Your task to perform on an android device: Open the calendar app, open the side menu, and click the "Day" option Image 0: 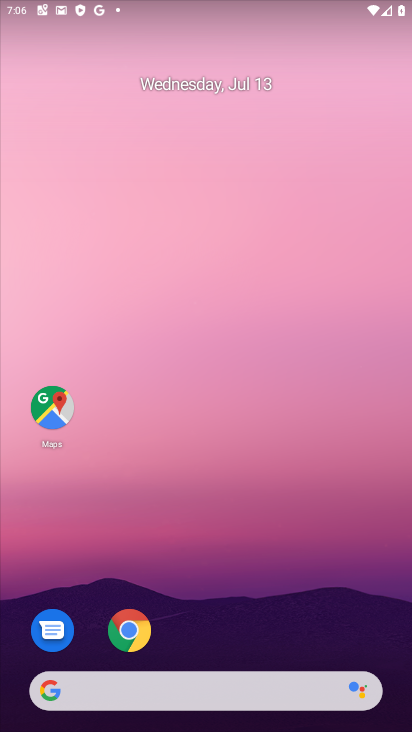
Step 0: drag from (301, 620) to (280, 32)
Your task to perform on an android device: Open the calendar app, open the side menu, and click the "Day" option Image 1: 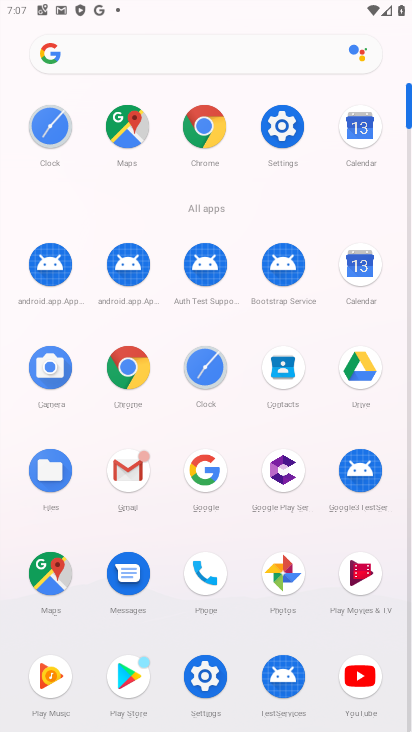
Step 1: click (355, 273)
Your task to perform on an android device: Open the calendar app, open the side menu, and click the "Day" option Image 2: 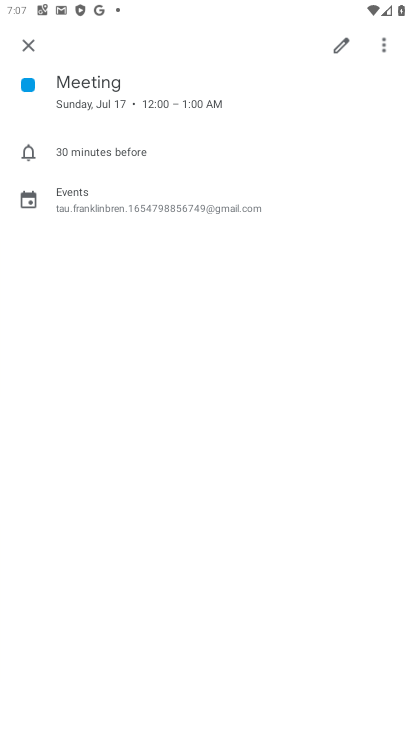
Step 2: press back button
Your task to perform on an android device: Open the calendar app, open the side menu, and click the "Day" option Image 3: 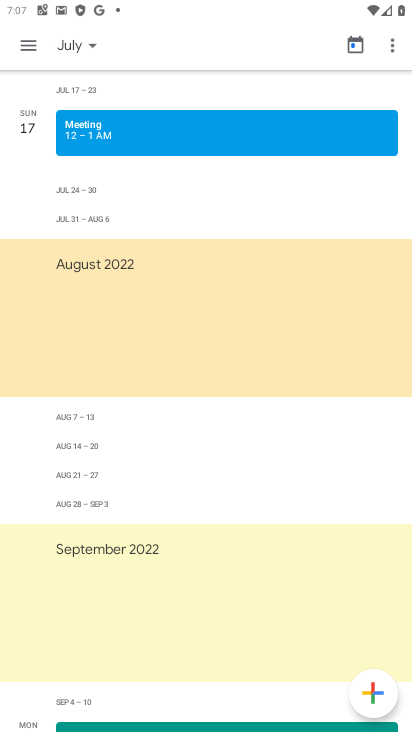
Step 3: click (28, 39)
Your task to perform on an android device: Open the calendar app, open the side menu, and click the "Day" option Image 4: 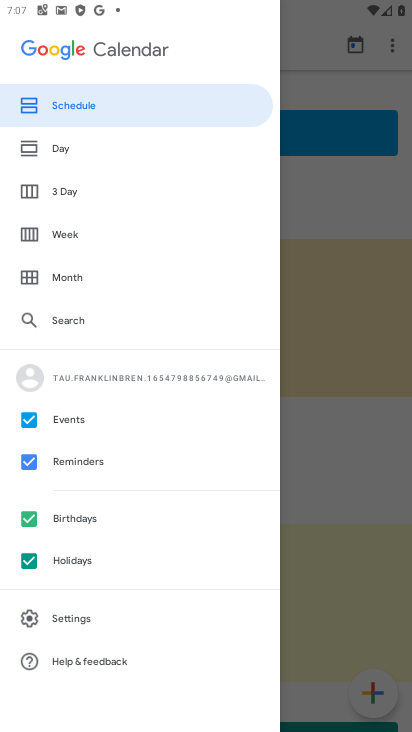
Step 4: click (110, 148)
Your task to perform on an android device: Open the calendar app, open the side menu, and click the "Day" option Image 5: 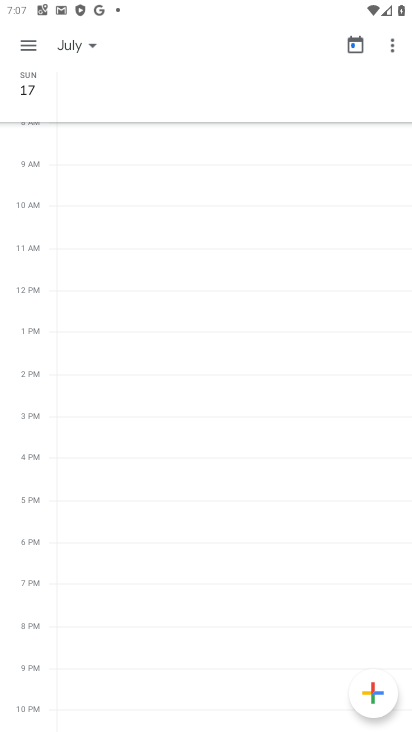
Step 5: task complete